Your task to perform on an android device: change timer sound Image 0: 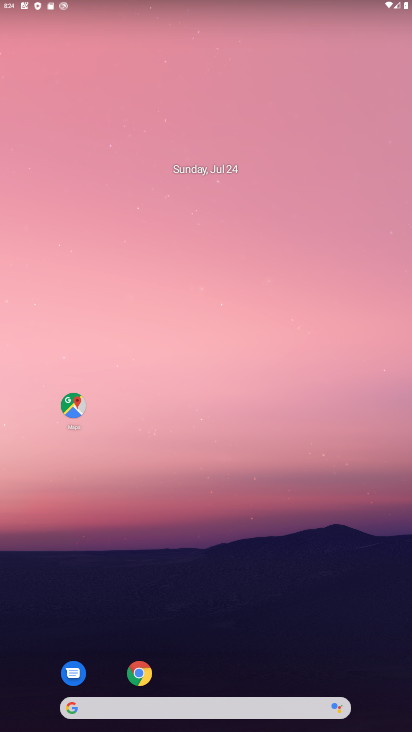
Step 0: drag from (184, 56) to (45, 349)
Your task to perform on an android device: change timer sound Image 1: 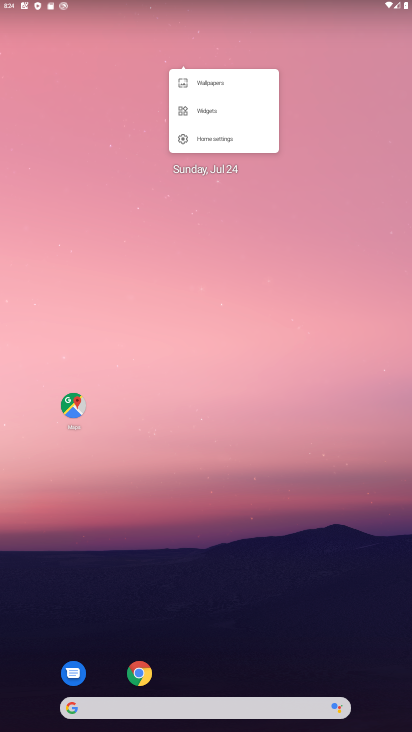
Step 1: click (110, 424)
Your task to perform on an android device: change timer sound Image 2: 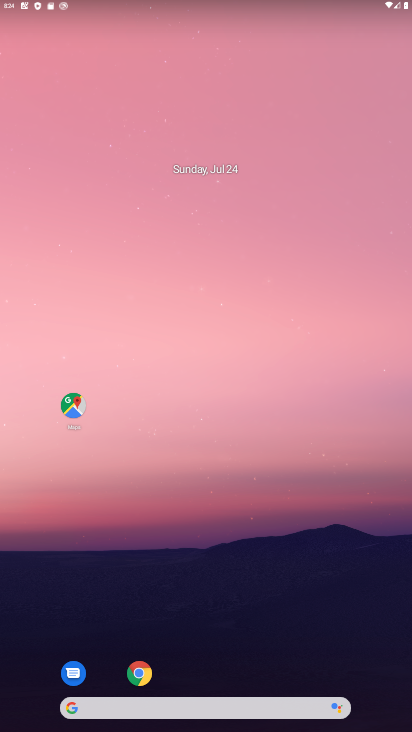
Step 2: click (208, 657)
Your task to perform on an android device: change timer sound Image 3: 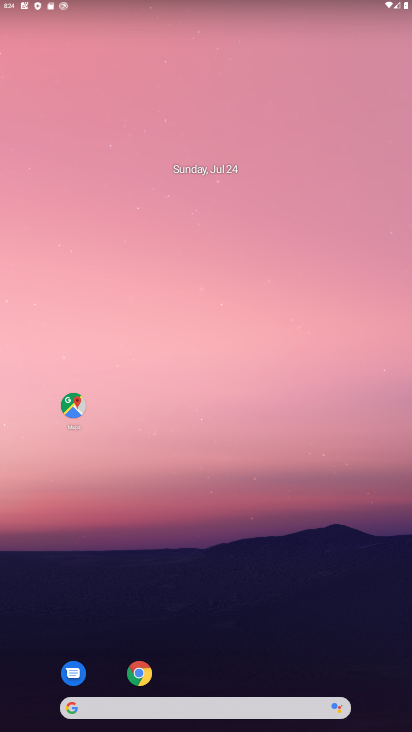
Step 3: drag from (192, 662) to (220, 317)
Your task to perform on an android device: change timer sound Image 4: 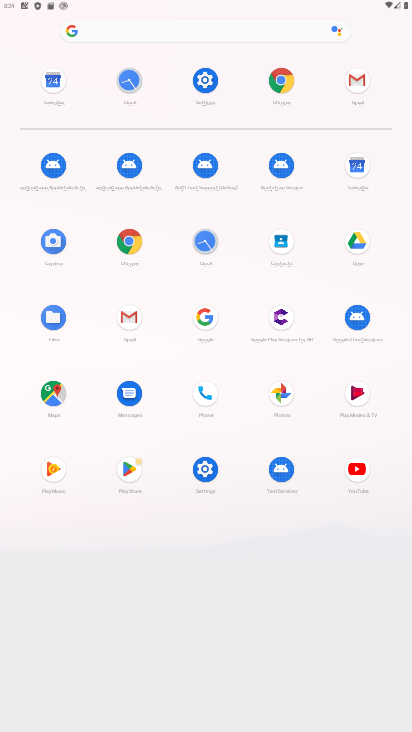
Step 4: click (126, 90)
Your task to perform on an android device: change timer sound Image 5: 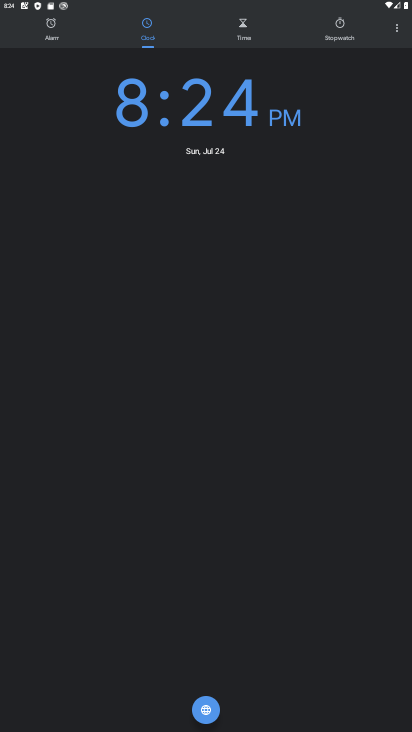
Step 5: click (398, 29)
Your task to perform on an android device: change timer sound Image 6: 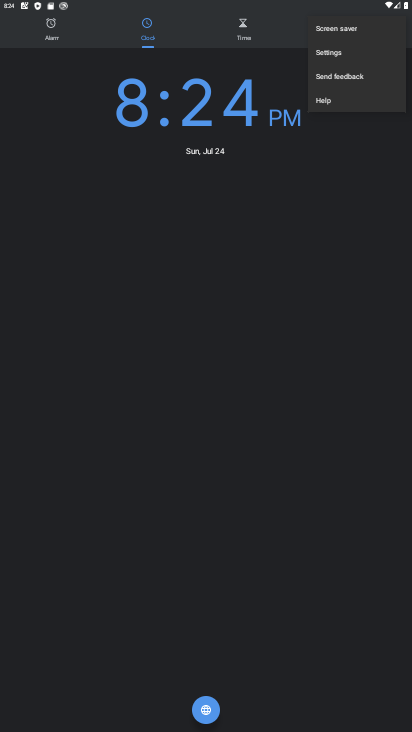
Step 6: click (337, 54)
Your task to perform on an android device: change timer sound Image 7: 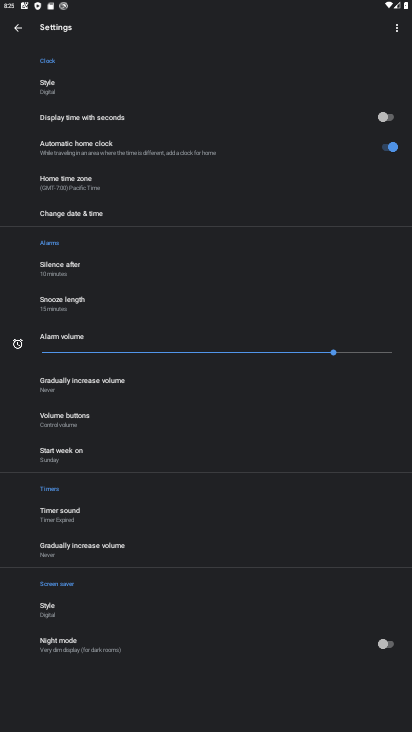
Step 7: click (60, 528)
Your task to perform on an android device: change timer sound Image 8: 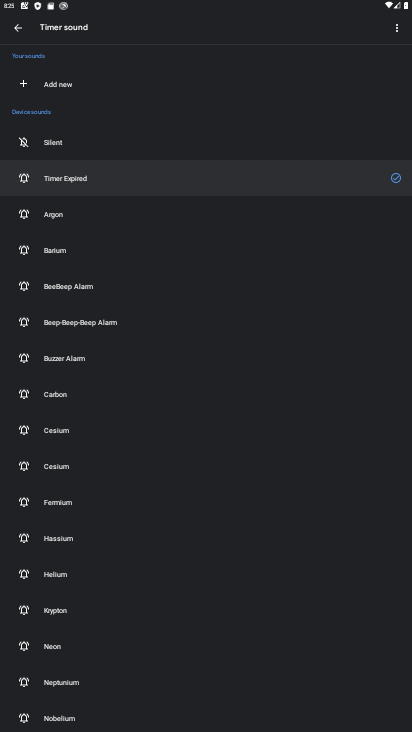
Step 8: click (59, 250)
Your task to perform on an android device: change timer sound Image 9: 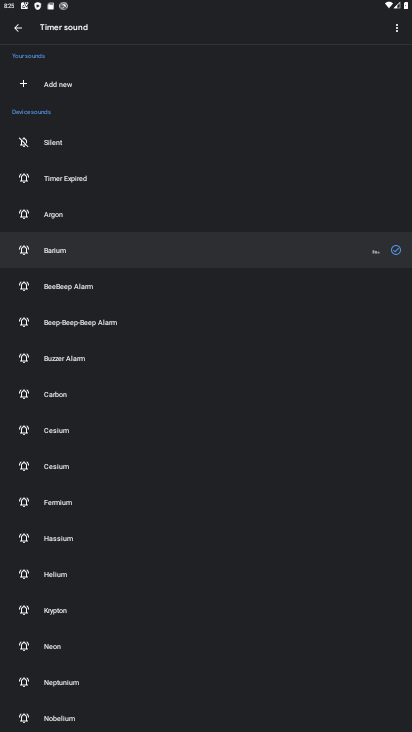
Step 9: task complete